Your task to perform on an android device: Check the news Image 0: 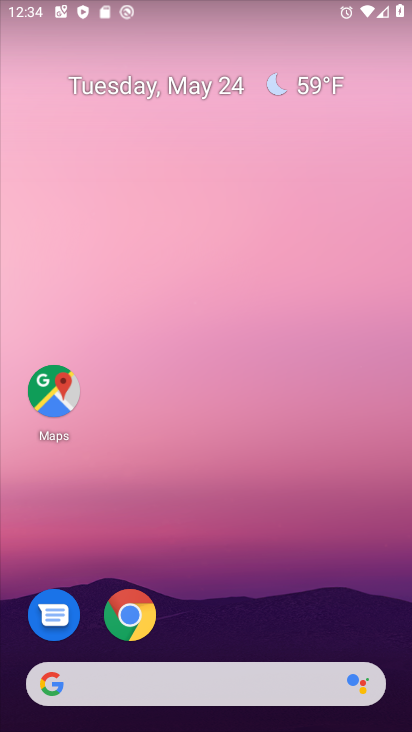
Step 0: drag from (277, 551) to (209, 84)
Your task to perform on an android device: Check the news Image 1: 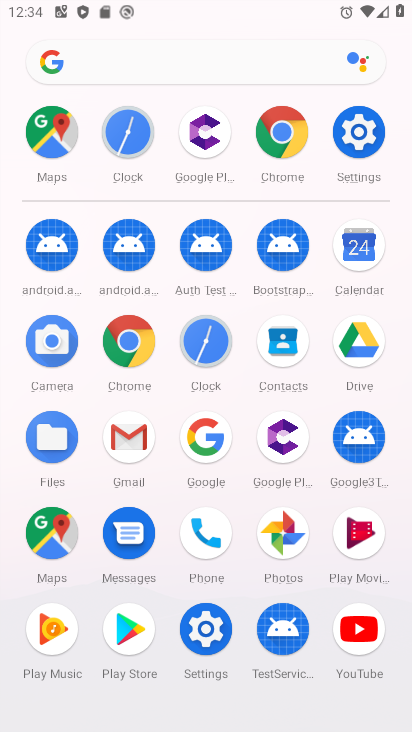
Step 1: click (127, 334)
Your task to perform on an android device: Check the news Image 2: 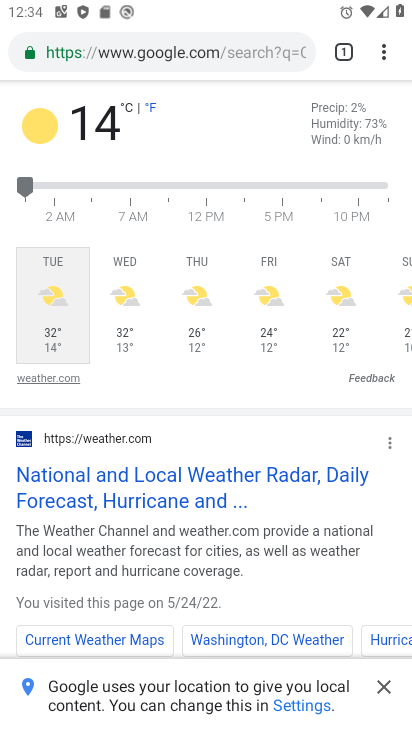
Step 2: task complete